Your task to perform on an android device: Search for Mexican restaurants on Maps Image 0: 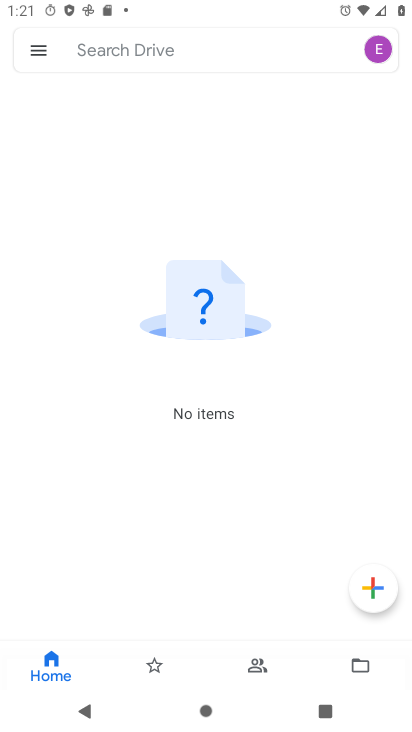
Step 0: press home button
Your task to perform on an android device: Search for Mexican restaurants on Maps Image 1: 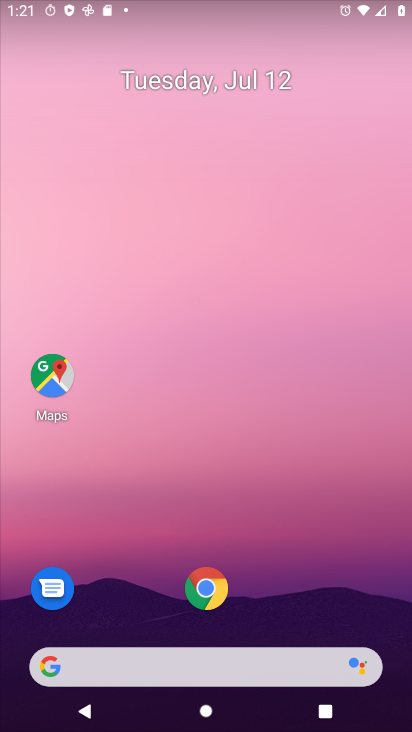
Step 1: click (48, 385)
Your task to perform on an android device: Search for Mexican restaurants on Maps Image 2: 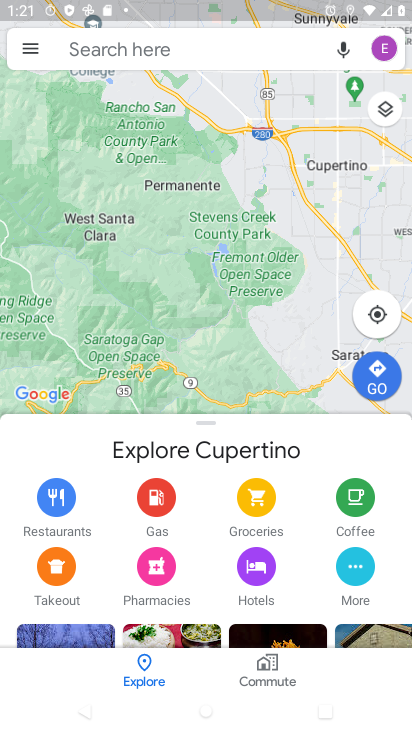
Step 2: click (160, 45)
Your task to perform on an android device: Search for Mexican restaurants on Maps Image 3: 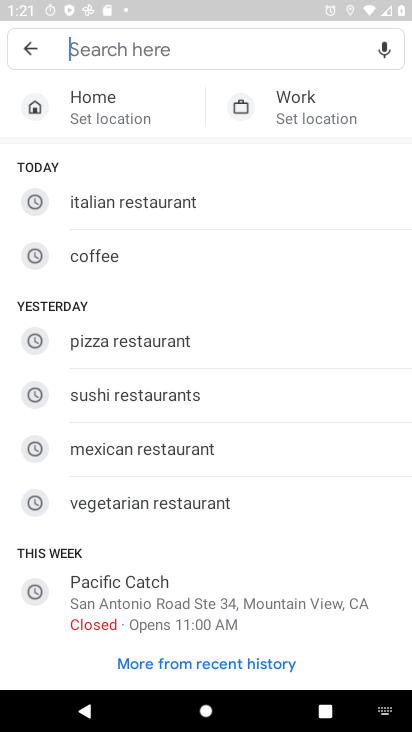
Step 3: click (189, 445)
Your task to perform on an android device: Search for Mexican restaurants on Maps Image 4: 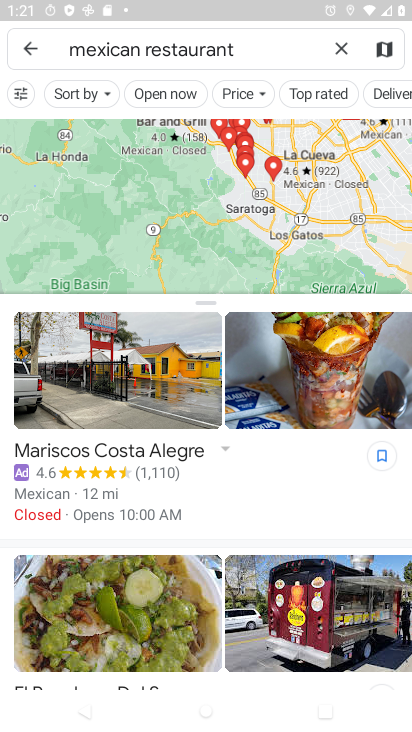
Step 4: task complete